Your task to perform on an android device: Open calendar and show me the fourth week of next month Image 0: 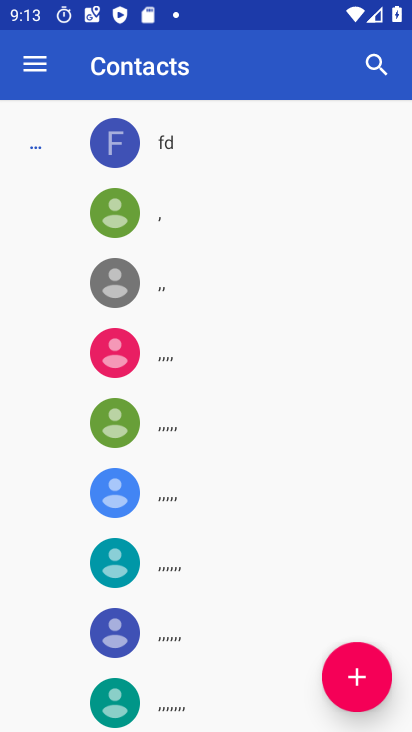
Step 0: press home button
Your task to perform on an android device: Open calendar and show me the fourth week of next month Image 1: 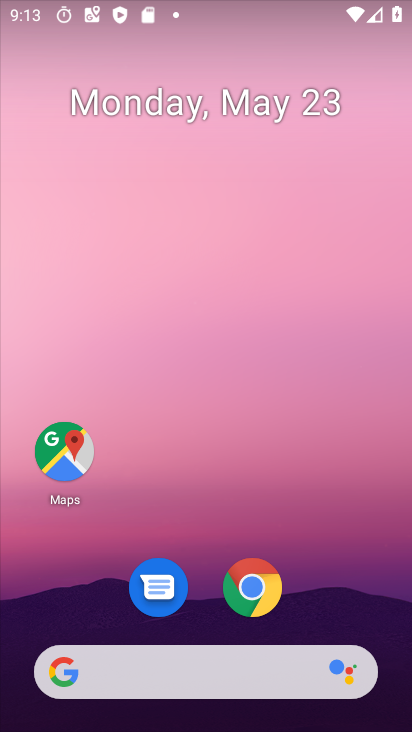
Step 1: drag from (356, 590) to (219, 59)
Your task to perform on an android device: Open calendar and show me the fourth week of next month Image 2: 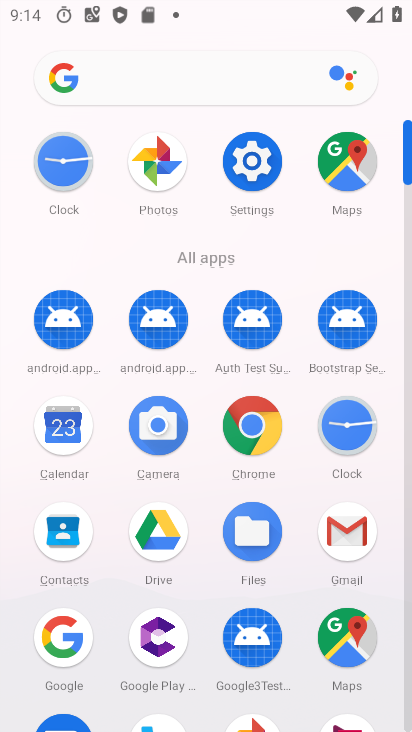
Step 2: click (62, 446)
Your task to perform on an android device: Open calendar and show me the fourth week of next month Image 3: 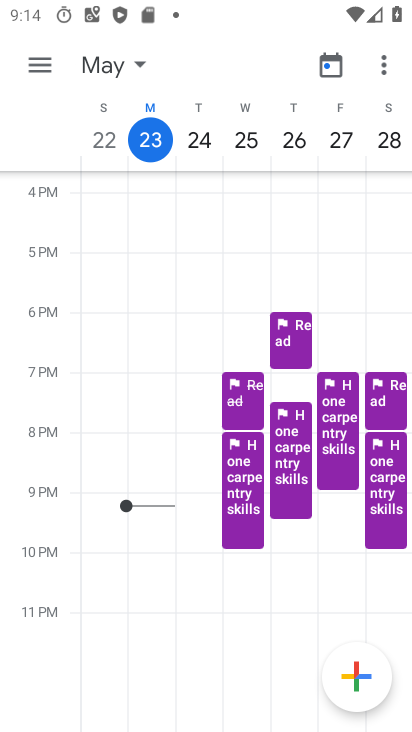
Step 3: click (38, 63)
Your task to perform on an android device: Open calendar and show me the fourth week of next month Image 4: 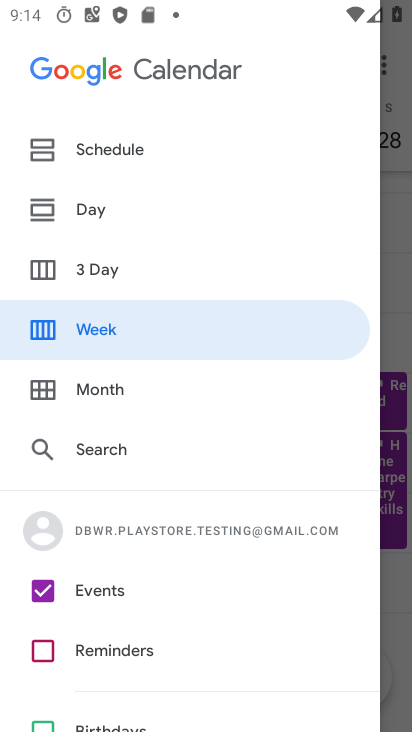
Step 4: click (191, 326)
Your task to perform on an android device: Open calendar and show me the fourth week of next month Image 5: 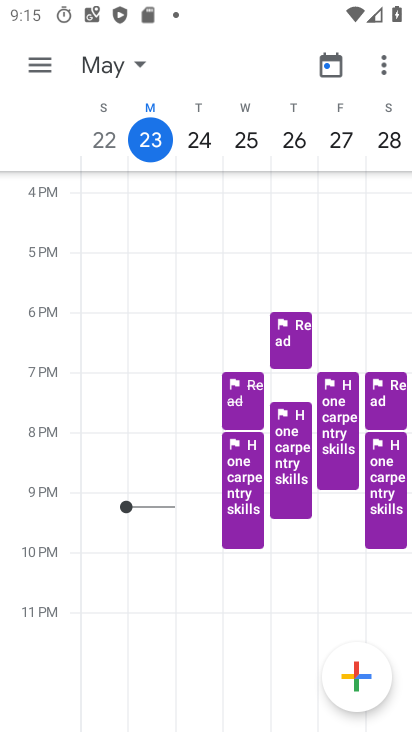
Step 5: click (115, 58)
Your task to perform on an android device: Open calendar and show me the fourth week of next month Image 6: 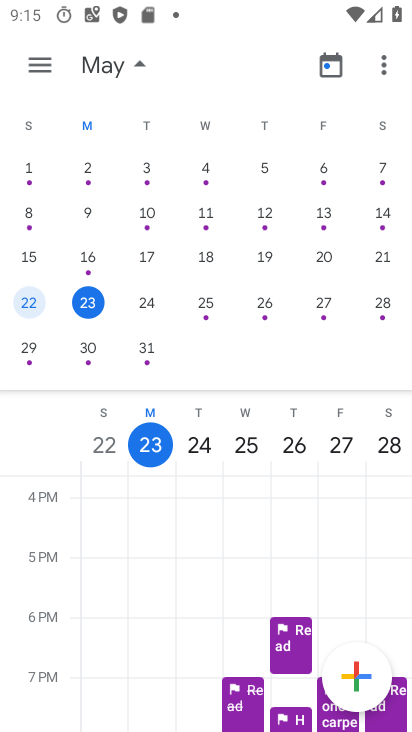
Step 6: drag from (221, 307) to (51, 166)
Your task to perform on an android device: Open calendar and show me the fourth week of next month Image 7: 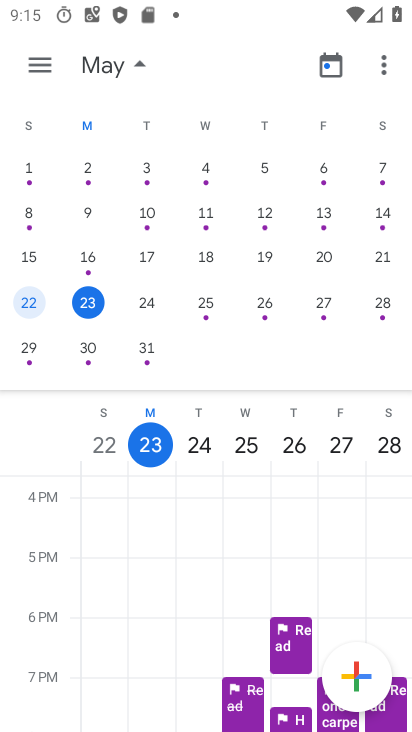
Step 7: drag from (395, 238) to (57, 218)
Your task to perform on an android device: Open calendar and show me the fourth week of next month Image 8: 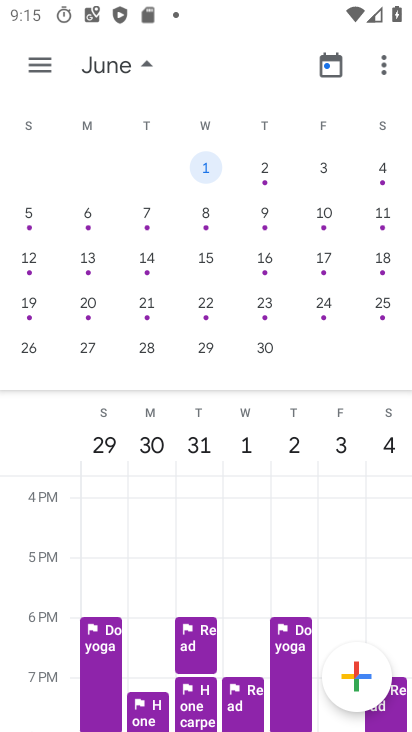
Step 8: click (264, 302)
Your task to perform on an android device: Open calendar and show me the fourth week of next month Image 9: 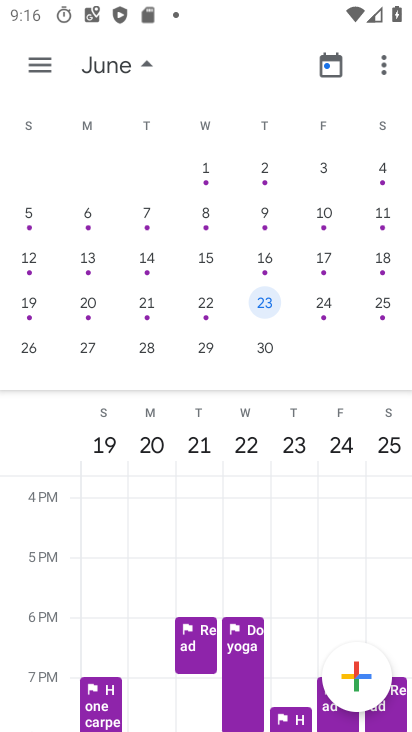
Step 9: task complete